Your task to perform on an android device: Go to Wikipedia Image 0: 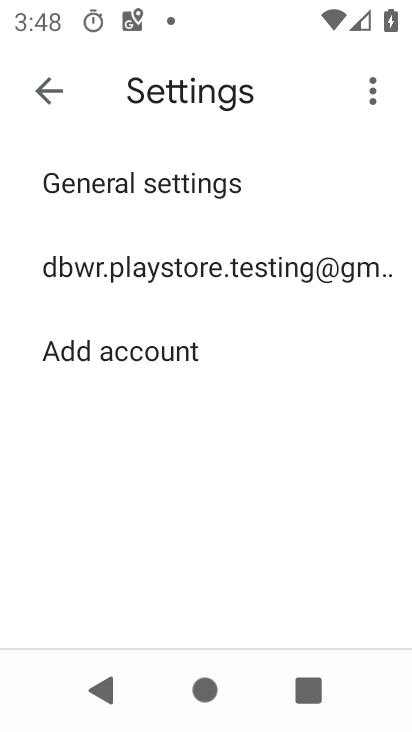
Step 0: press home button
Your task to perform on an android device: Go to Wikipedia Image 1: 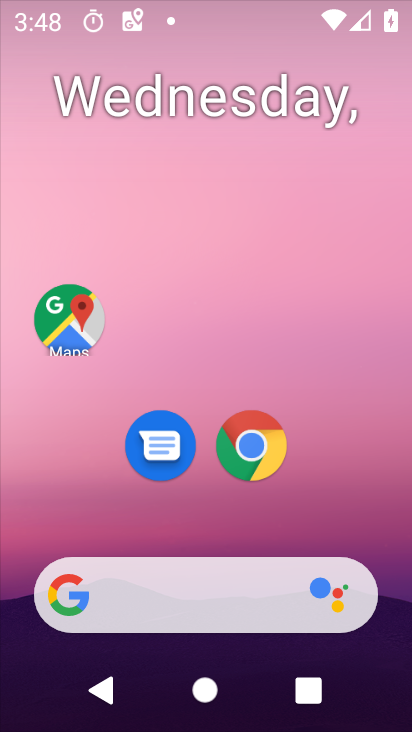
Step 1: drag from (222, 541) to (260, 101)
Your task to perform on an android device: Go to Wikipedia Image 2: 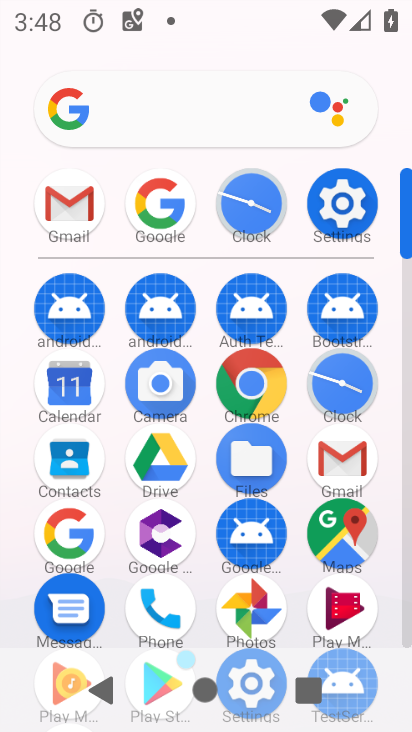
Step 2: click (251, 385)
Your task to perform on an android device: Go to Wikipedia Image 3: 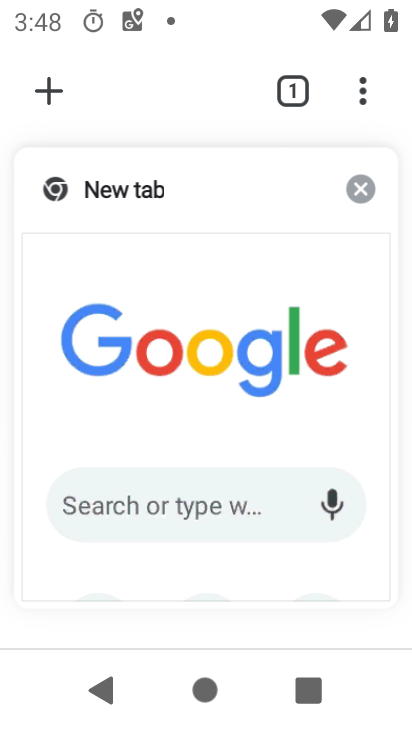
Step 3: press back button
Your task to perform on an android device: Go to Wikipedia Image 4: 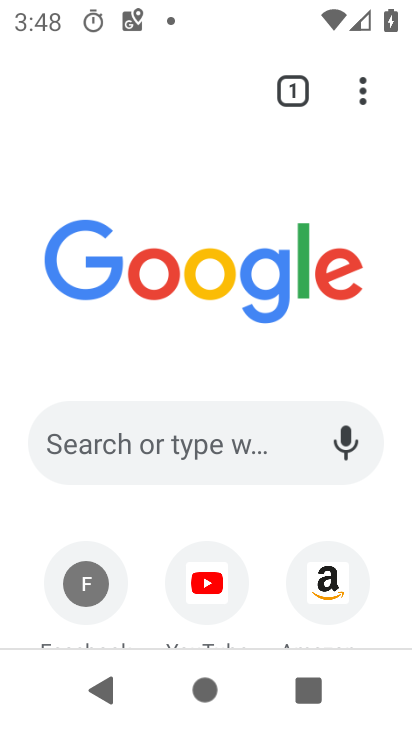
Step 4: drag from (190, 507) to (229, 204)
Your task to perform on an android device: Go to Wikipedia Image 5: 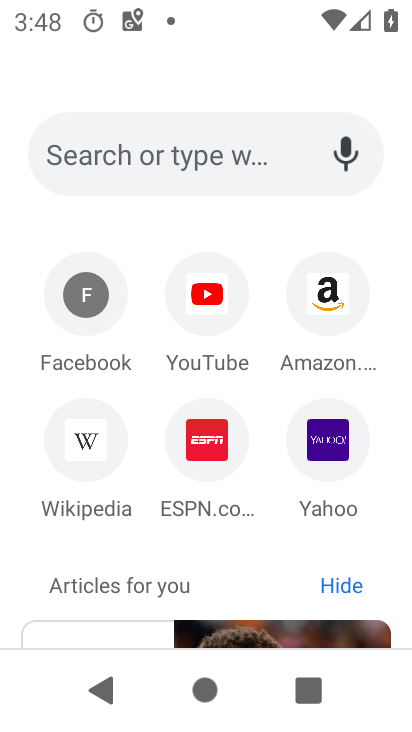
Step 5: click (81, 444)
Your task to perform on an android device: Go to Wikipedia Image 6: 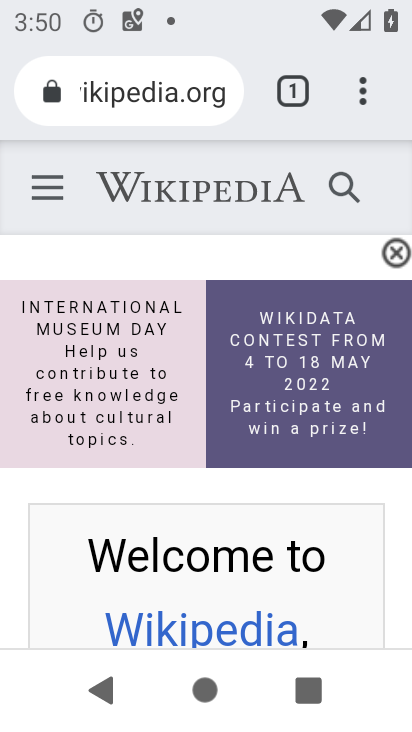
Step 6: task complete